Your task to perform on an android device: Search for Mexican restaurants on Maps Image 0: 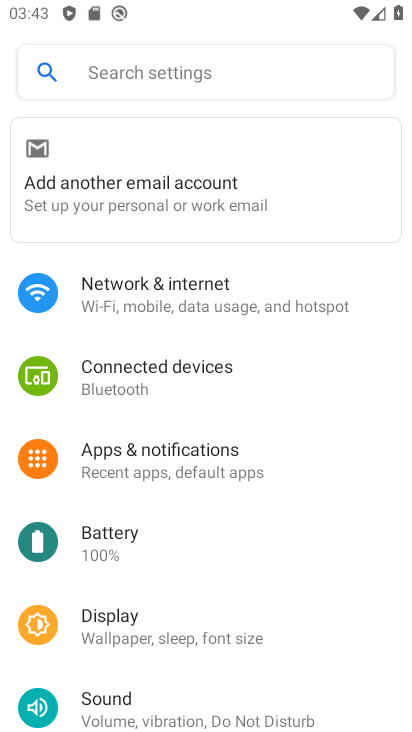
Step 0: press home button
Your task to perform on an android device: Search for Mexican restaurants on Maps Image 1: 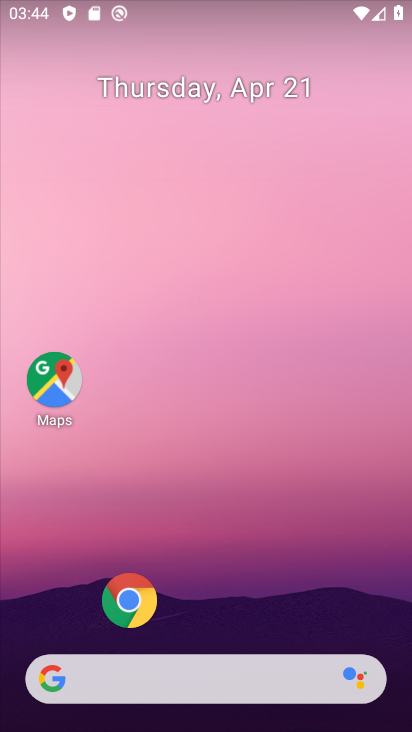
Step 1: click (60, 387)
Your task to perform on an android device: Search for Mexican restaurants on Maps Image 2: 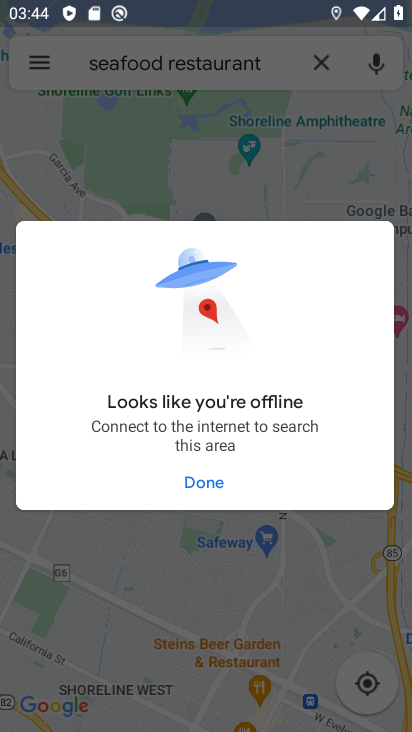
Step 2: click (221, 475)
Your task to perform on an android device: Search for Mexican restaurants on Maps Image 3: 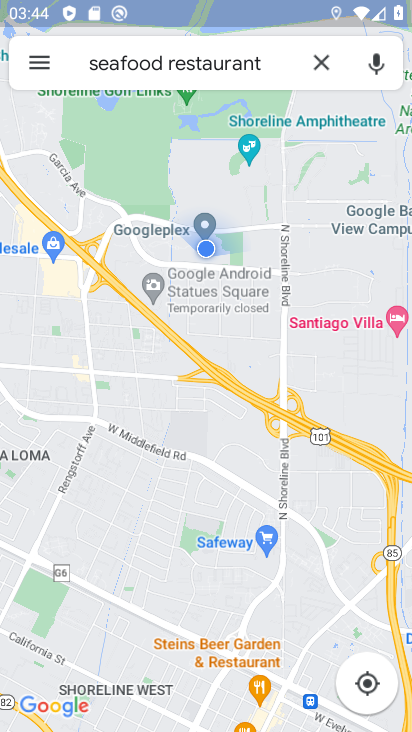
Step 3: click (322, 55)
Your task to perform on an android device: Search for Mexican restaurants on Maps Image 4: 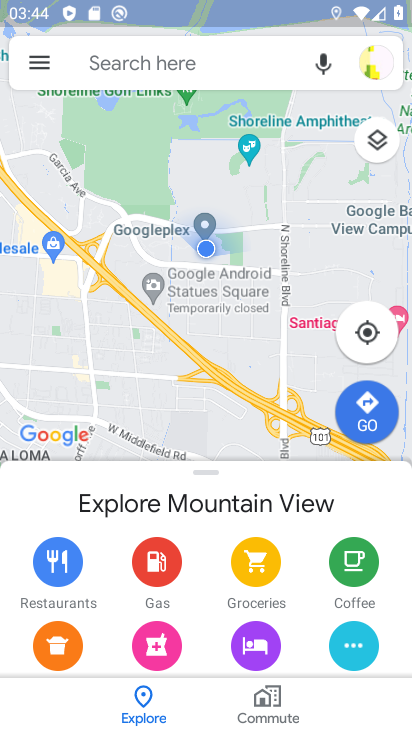
Step 4: click (225, 67)
Your task to perform on an android device: Search for Mexican restaurants on Maps Image 5: 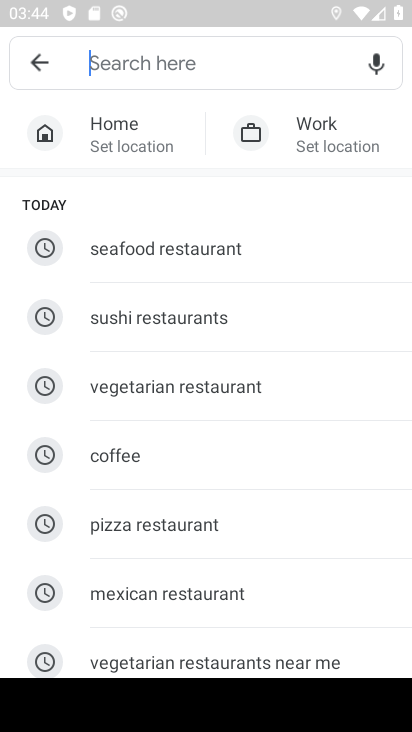
Step 5: click (224, 597)
Your task to perform on an android device: Search for Mexican restaurants on Maps Image 6: 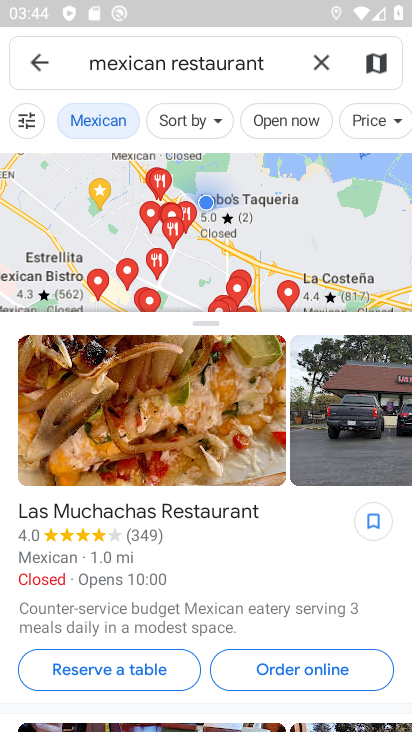
Step 6: task complete